Your task to perform on an android device: Do I have any events this weekend? Image 0: 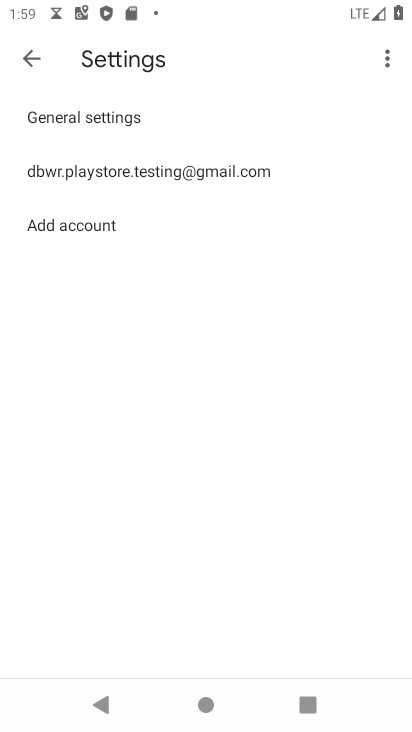
Step 0: press home button
Your task to perform on an android device: Do I have any events this weekend? Image 1: 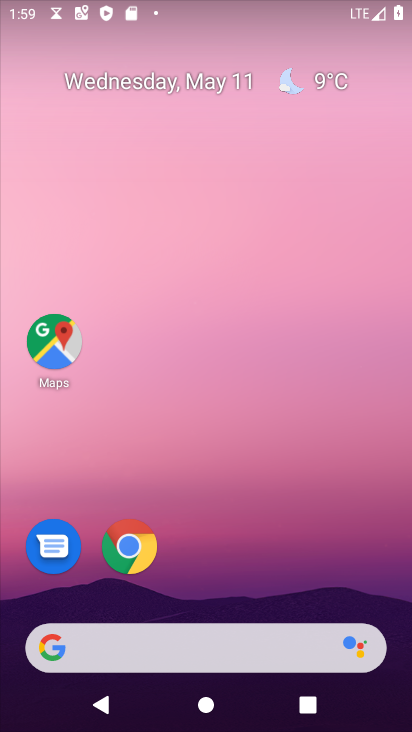
Step 1: drag from (287, 595) to (351, 72)
Your task to perform on an android device: Do I have any events this weekend? Image 2: 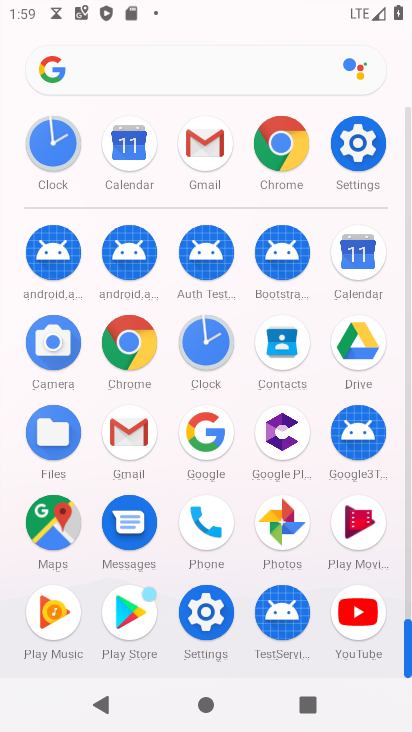
Step 2: click (363, 262)
Your task to perform on an android device: Do I have any events this weekend? Image 3: 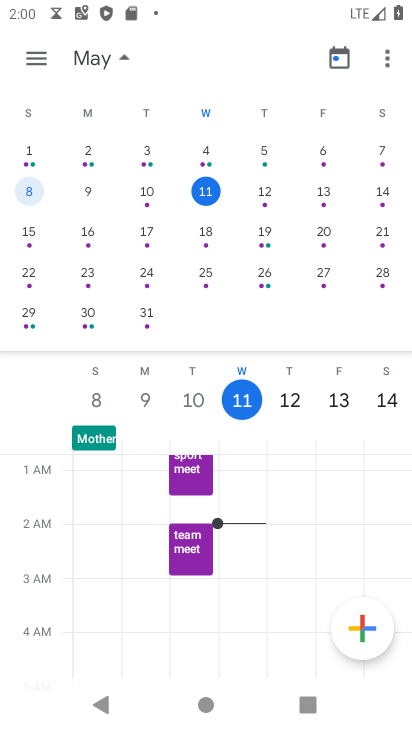
Step 3: click (383, 195)
Your task to perform on an android device: Do I have any events this weekend? Image 4: 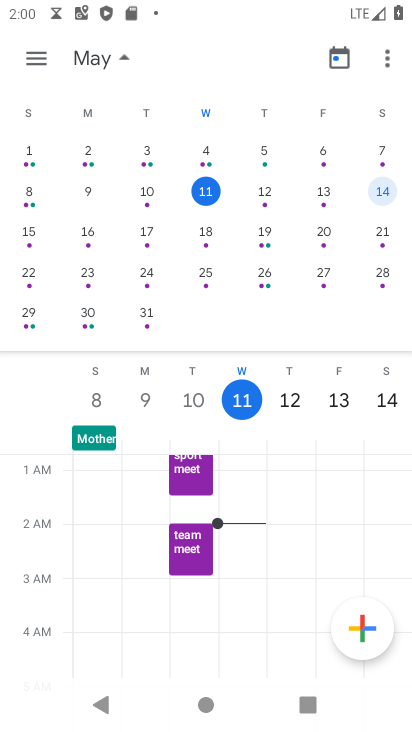
Step 4: click (391, 394)
Your task to perform on an android device: Do I have any events this weekend? Image 5: 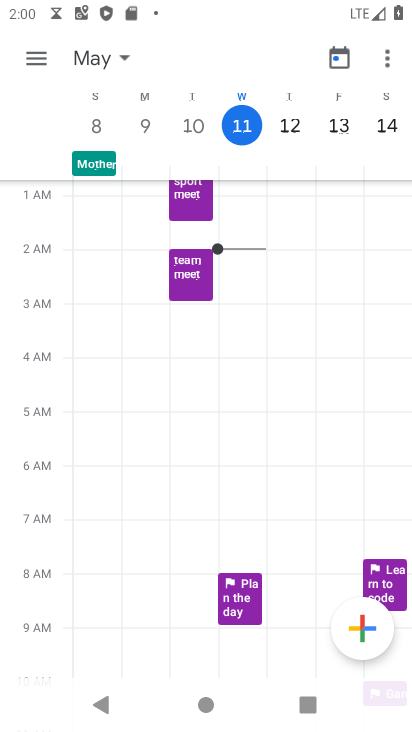
Step 5: task complete